Your task to perform on an android device: allow cookies in the chrome app Image 0: 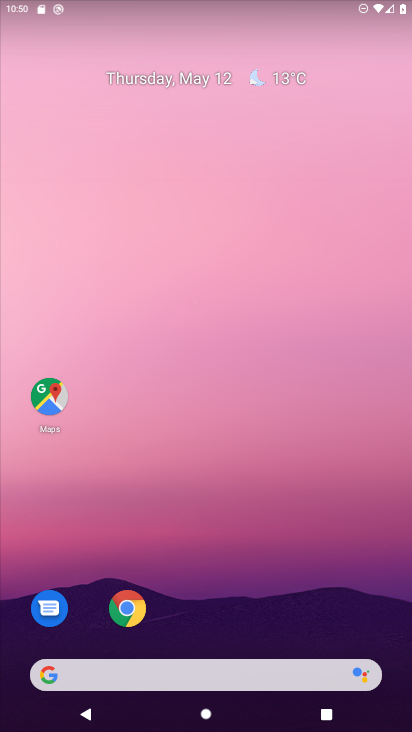
Step 0: drag from (237, 546) to (186, 66)
Your task to perform on an android device: allow cookies in the chrome app Image 1: 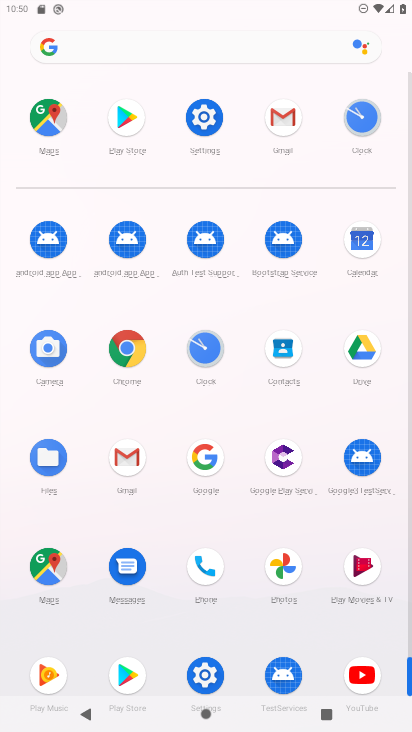
Step 1: click (128, 355)
Your task to perform on an android device: allow cookies in the chrome app Image 2: 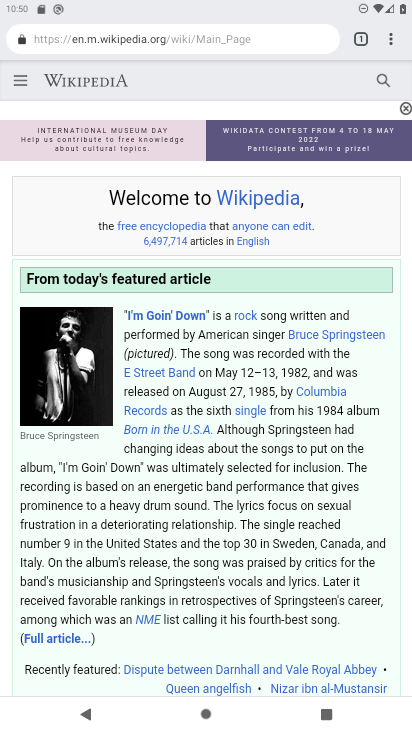
Step 2: click (383, 42)
Your task to perform on an android device: allow cookies in the chrome app Image 3: 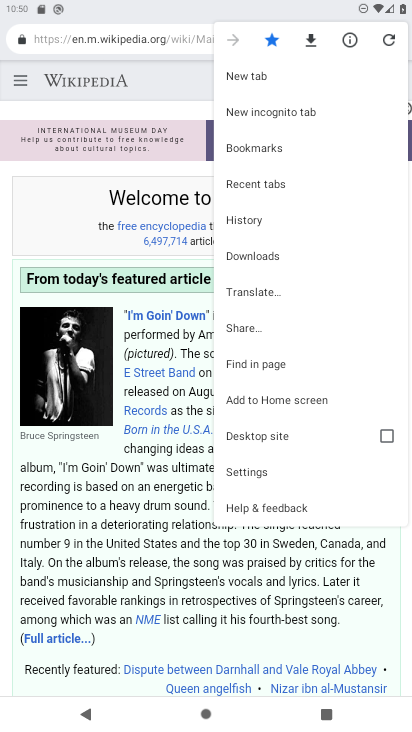
Step 3: click (269, 471)
Your task to perform on an android device: allow cookies in the chrome app Image 4: 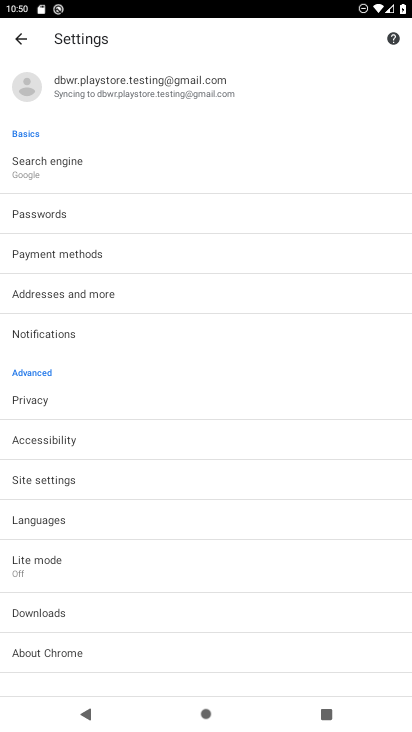
Step 4: click (82, 474)
Your task to perform on an android device: allow cookies in the chrome app Image 5: 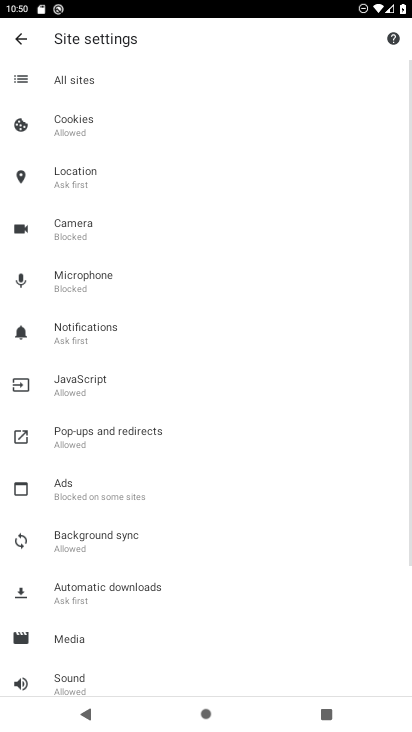
Step 5: click (105, 137)
Your task to perform on an android device: allow cookies in the chrome app Image 6: 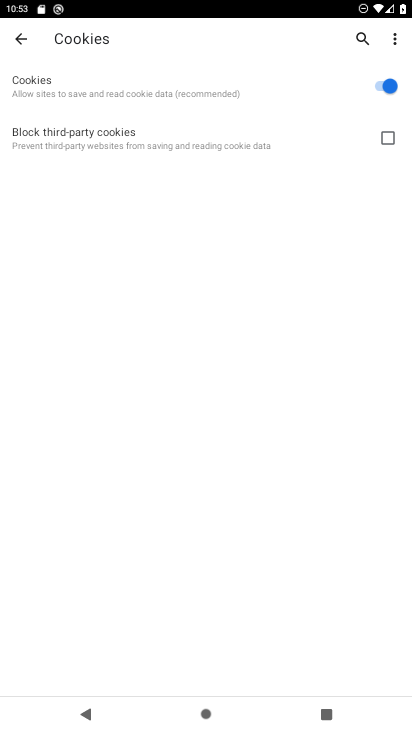
Step 6: task complete